Your task to perform on an android device: Search for Mexican restaurants on Maps Image 0: 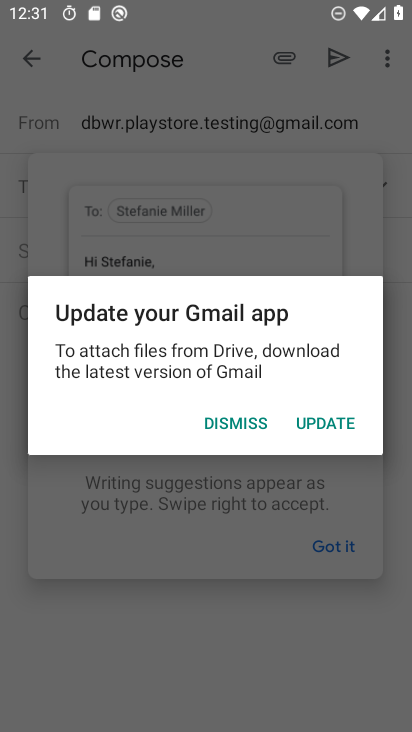
Step 0: press home button
Your task to perform on an android device: Search for Mexican restaurants on Maps Image 1: 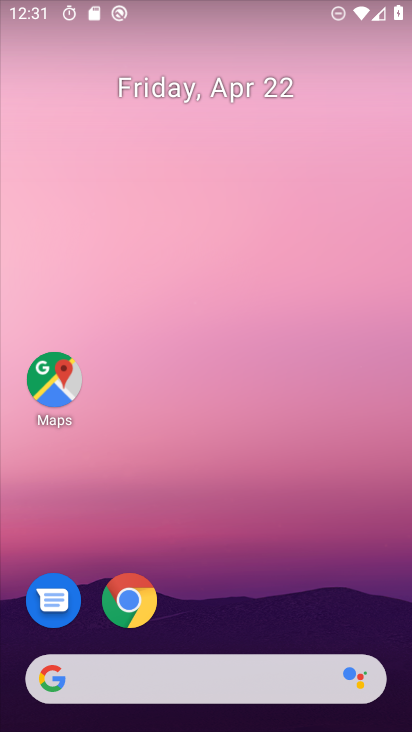
Step 1: click (56, 384)
Your task to perform on an android device: Search for Mexican restaurants on Maps Image 2: 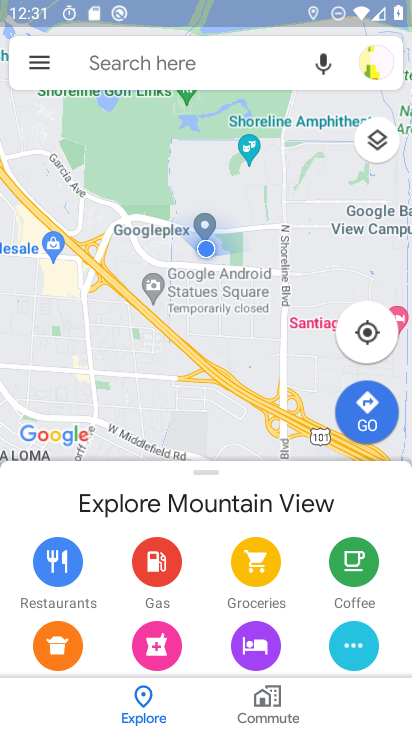
Step 2: click (203, 61)
Your task to perform on an android device: Search for Mexican restaurants on Maps Image 3: 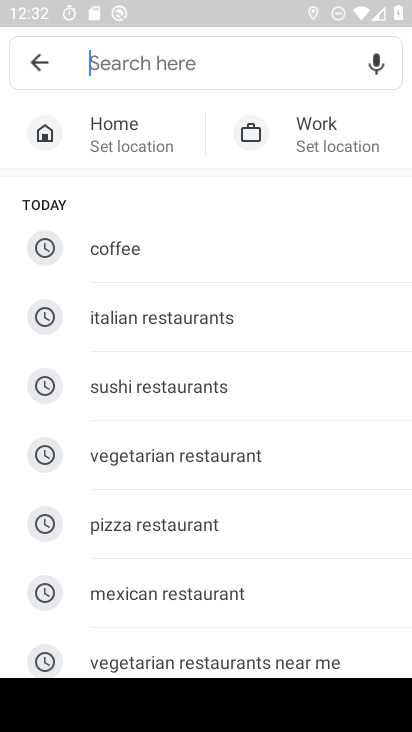
Step 3: type "Mexican restaurants"
Your task to perform on an android device: Search for Mexican restaurants on Maps Image 4: 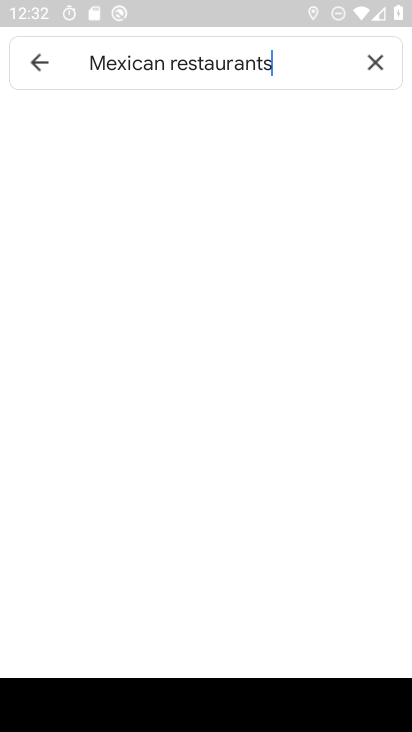
Step 4: type ""
Your task to perform on an android device: Search for Mexican restaurants on Maps Image 5: 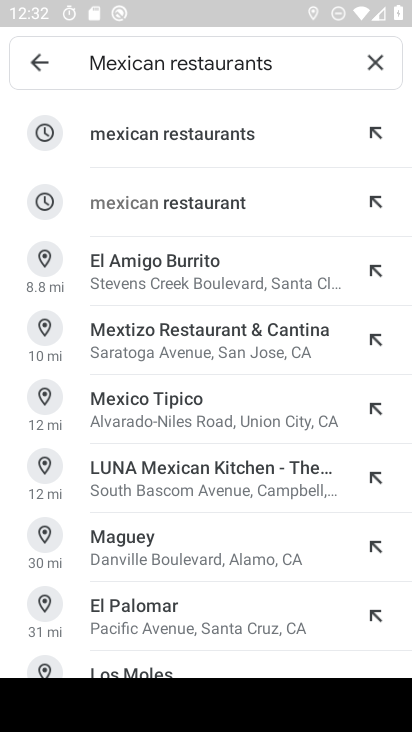
Step 5: click (186, 141)
Your task to perform on an android device: Search for Mexican restaurants on Maps Image 6: 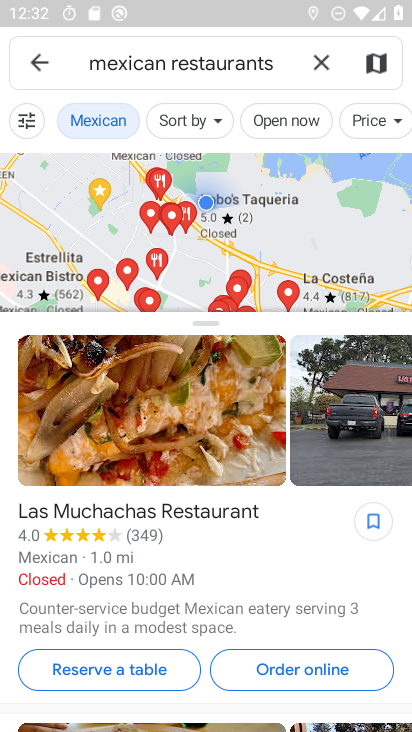
Step 6: task complete